Your task to perform on an android device: Open the phone app and click the voicemail tab. Image 0: 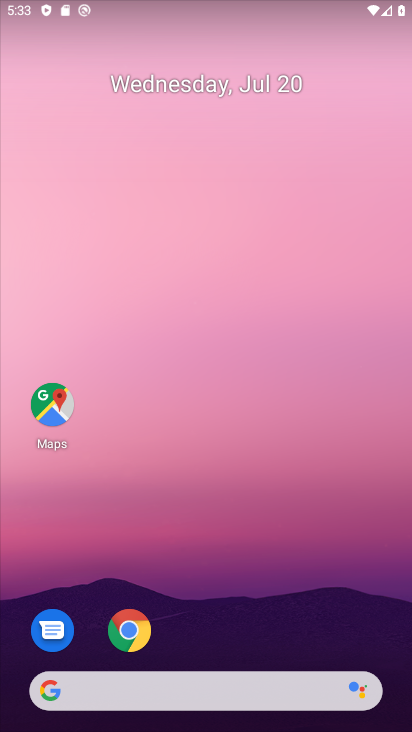
Step 0: drag from (144, 680) to (205, 76)
Your task to perform on an android device: Open the phone app and click the voicemail tab. Image 1: 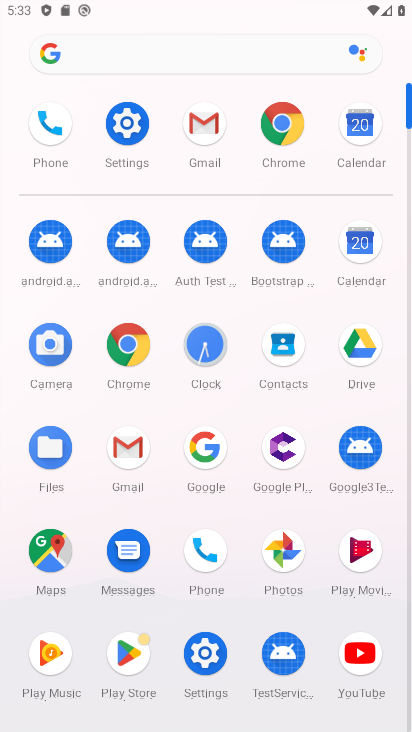
Step 1: click (200, 551)
Your task to perform on an android device: Open the phone app and click the voicemail tab. Image 2: 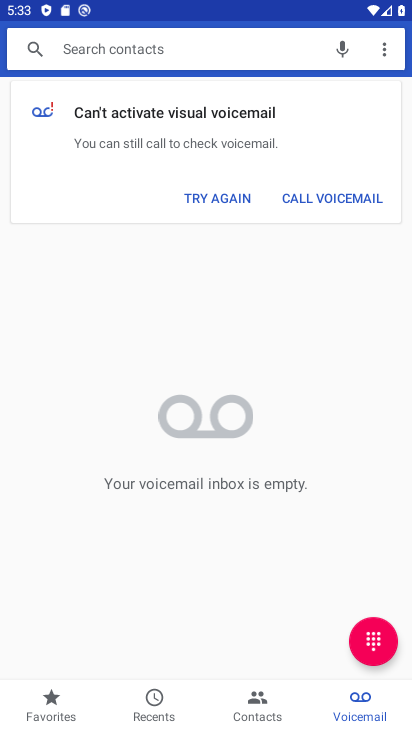
Step 2: task complete